Your task to perform on an android device: set the timer Image 0: 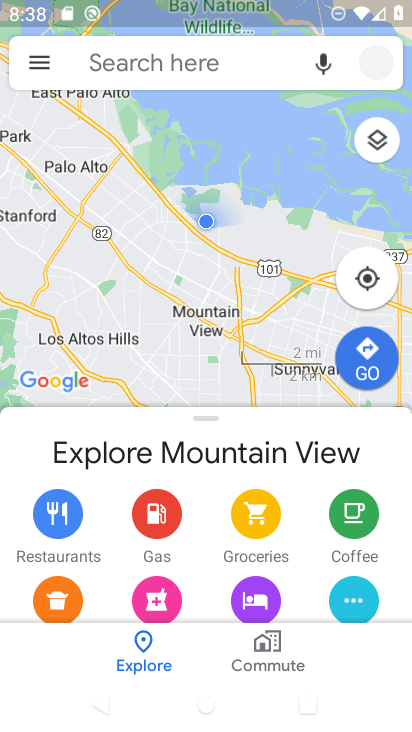
Step 0: press home button
Your task to perform on an android device: set the timer Image 1: 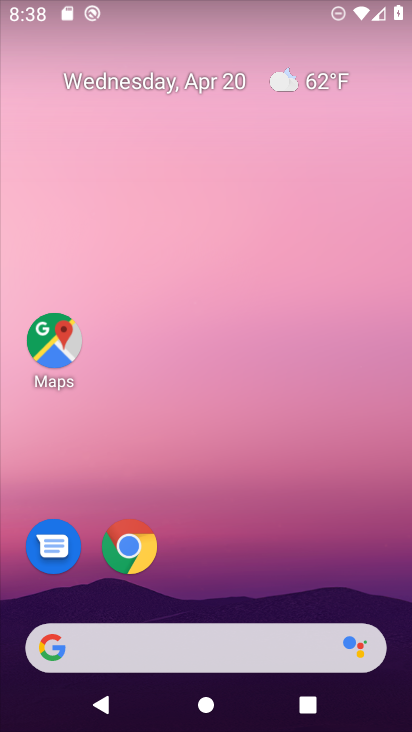
Step 1: drag from (237, 539) to (260, 116)
Your task to perform on an android device: set the timer Image 2: 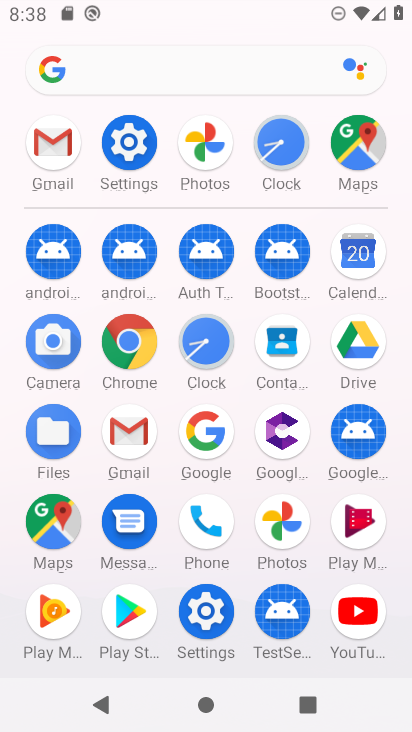
Step 2: click (206, 344)
Your task to perform on an android device: set the timer Image 3: 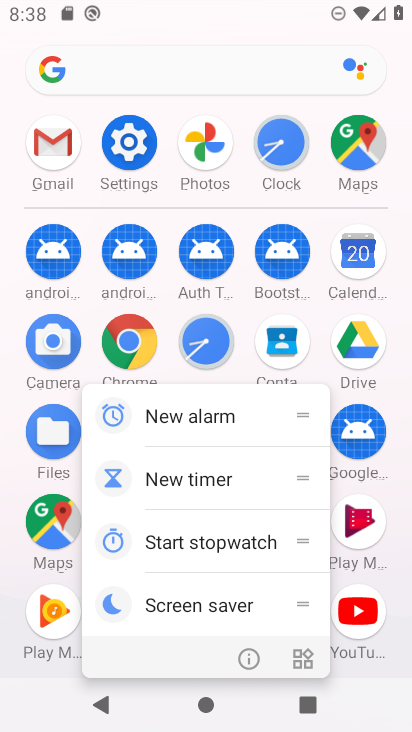
Step 3: click (208, 338)
Your task to perform on an android device: set the timer Image 4: 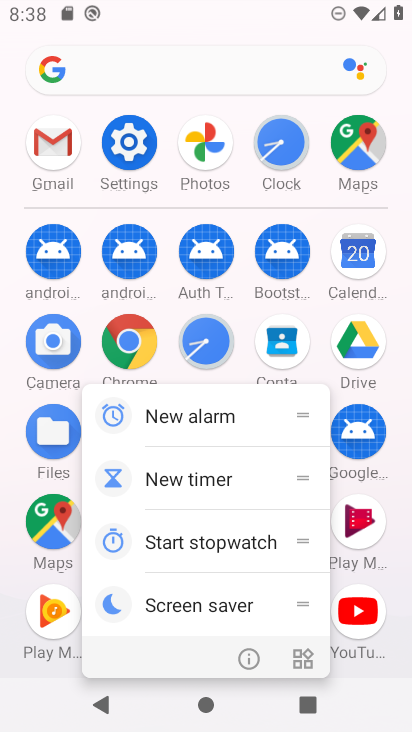
Step 4: click (208, 338)
Your task to perform on an android device: set the timer Image 5: 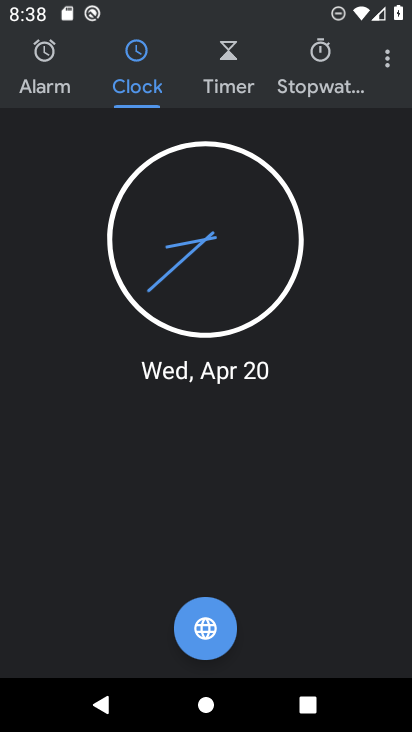
Step 5: click (230, 70)
Your task to perform on an android device: set the timer Image 6: 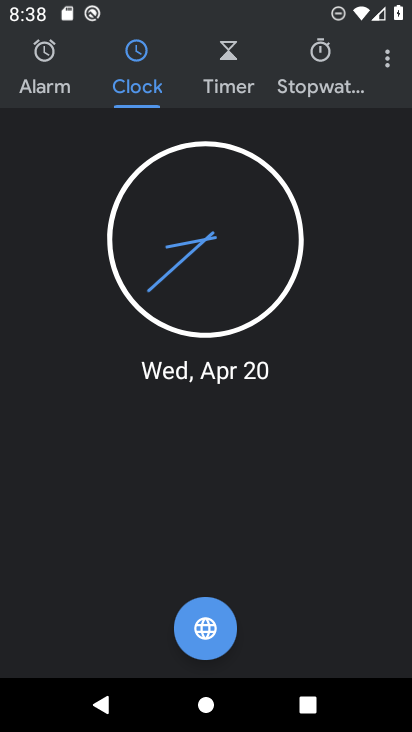
Step 6: click (230, 70)
Your task to perform on an android device: set the timer Image 7: 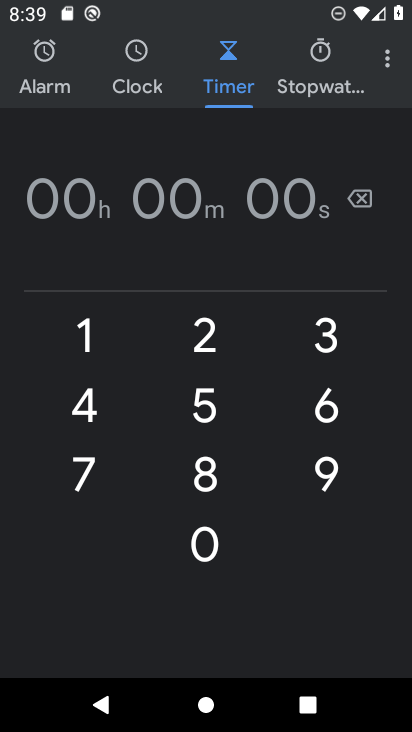
Step 7: click (92, 327)
Your task to perform on an android device: set the timer Image 8: 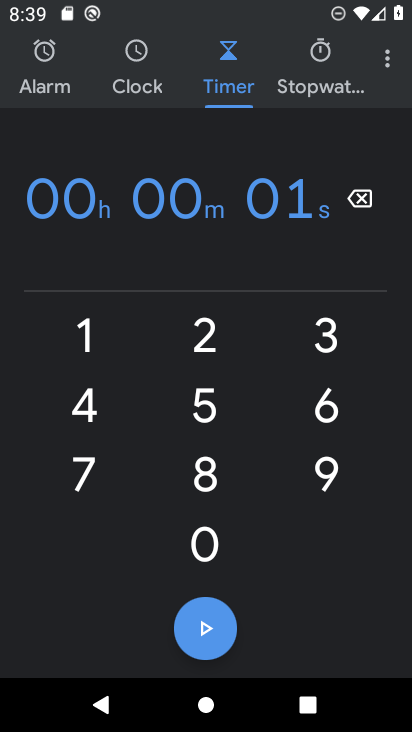
Step 8: click (92, 327)
Your task to perform on an android device: set the timer Image 9: 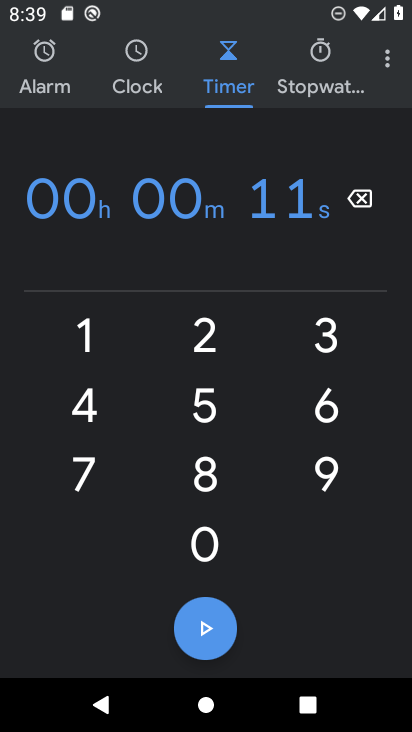
Step 9: task complete